Your task to perform on an android device: What's the weather today? Image 0: 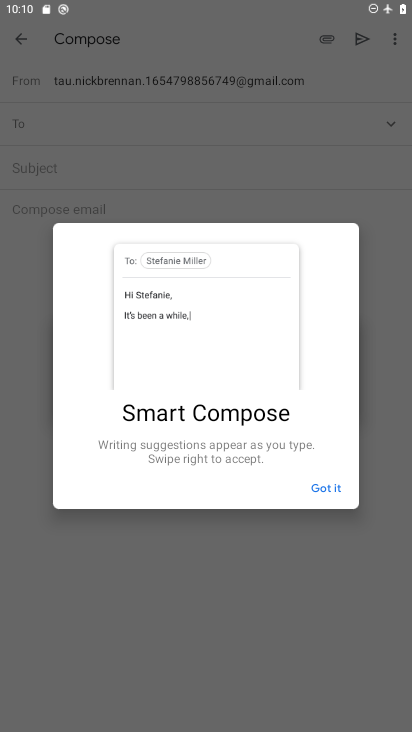
Step 0: press home button
Your task to perform on an android device: What's the weather today? Image 1: 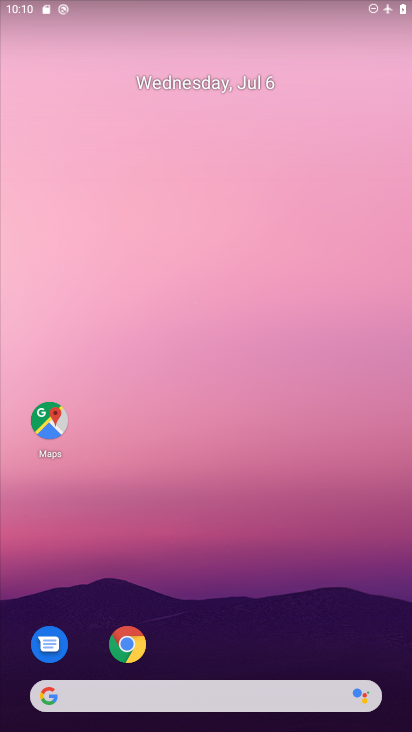
Step 1: drag from (209, 621) to (209, 160)
Your task to perform on an android device: What's the weather today? Image 2: 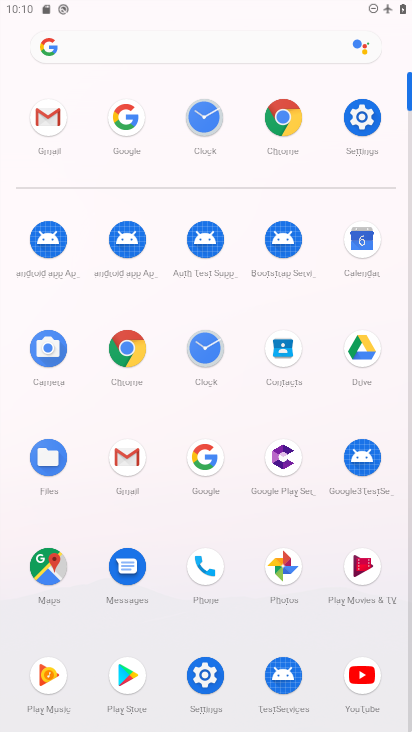
Step 2: click (201, 459)
Your task to perform on an android device: What's the weather today? Image 3: 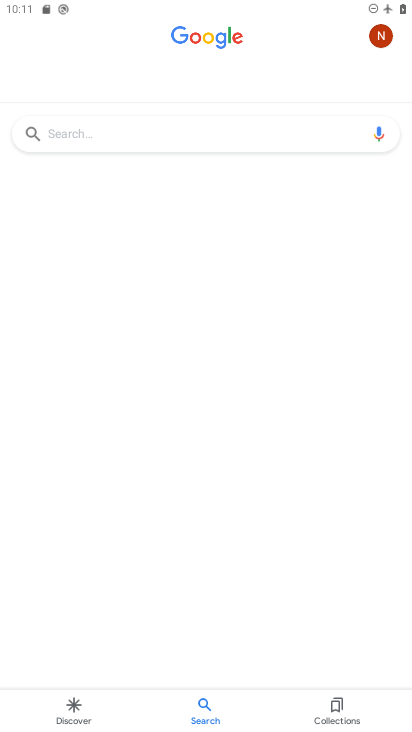
Step 3: click (202, 136)
Your task to perform on an android device: What's the weather today? Image 4: 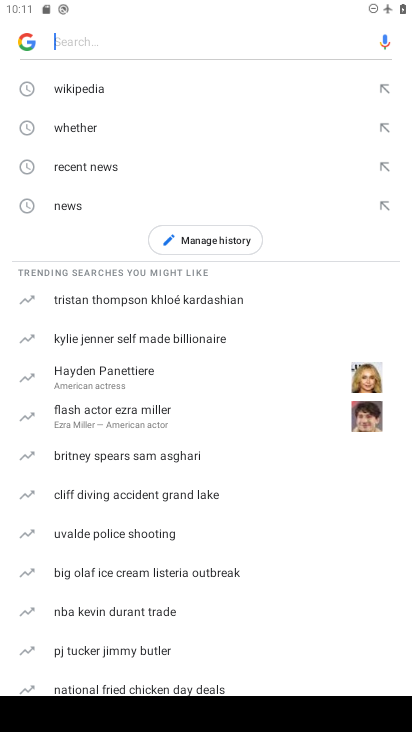
Step 4: type "weather today"
Your task to perform on an android device: What's the weather today? Image 5: 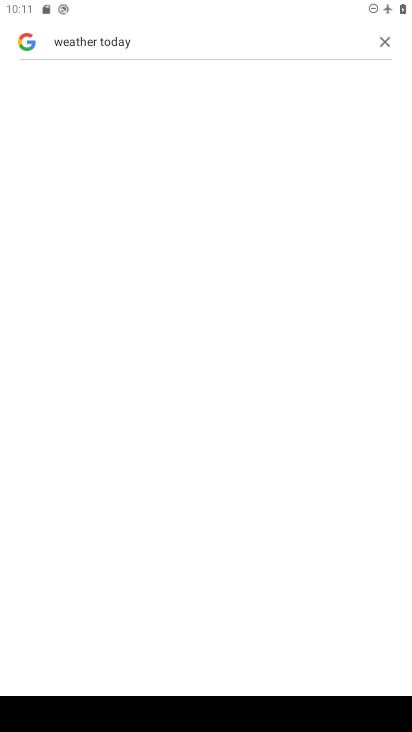
Step 5: task complete